Your task to perform on an android device: turn off javascript in the chrome app Image 0: 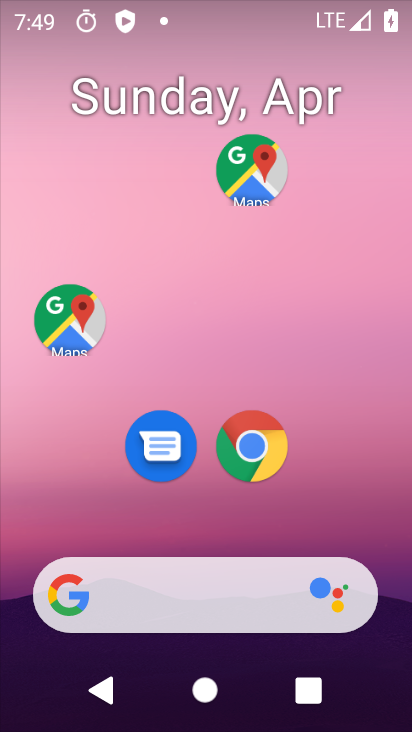
Step 0: drag from (224, 535) to (228, 94)
Your task to perform on an android device: turn off javascript in the chrome app Image 1: 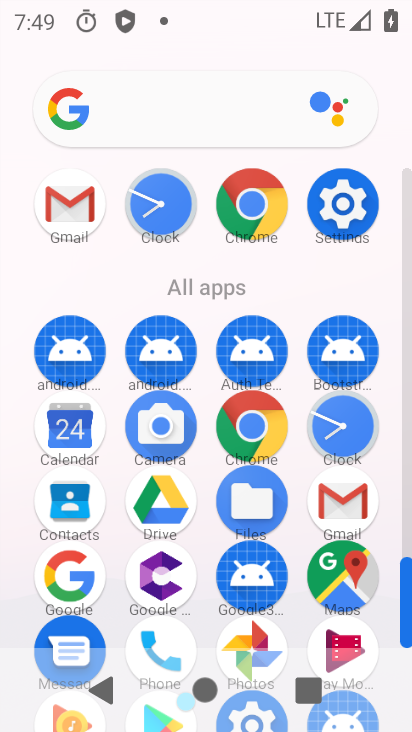
Step 1: click (247, 416)
Your task to perform on an android device: turn off javascript in the chrome app Image 2: 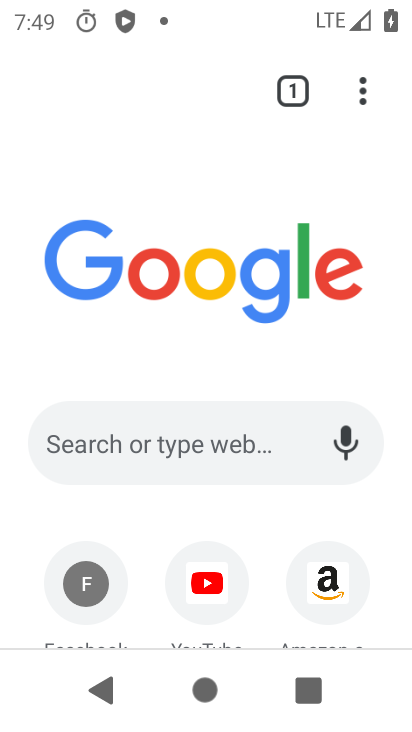
Step 2: drag from (359, 97) to (188, 469)
Your task to perform on an android device: turn off javascript in the chrome app Image 3: 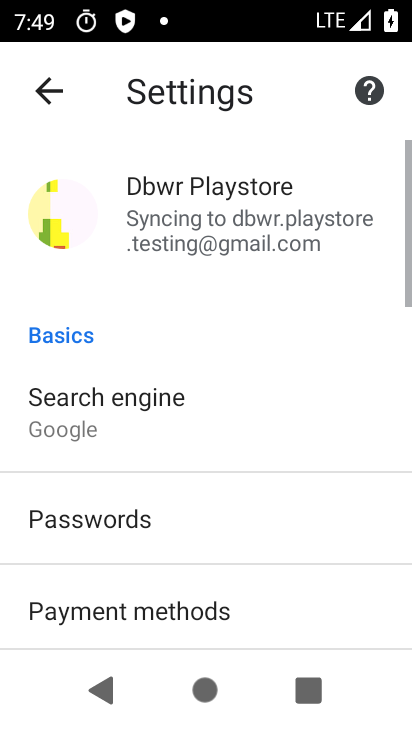
Step 3: drag from (186, 555) to (118, 24)
Your task to perform on an android device: turn off javascript in the chrome app Image 4: 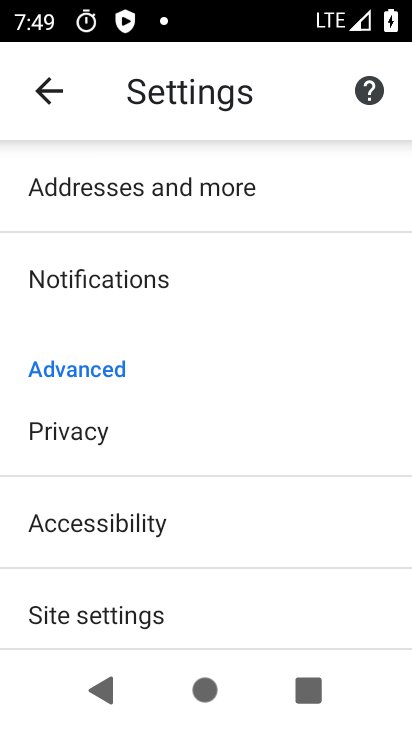
Step 4: drag from (180, 545) to (180, 382)
Your task to perform on an android device: turn off javascript in the chrome app Image 5: 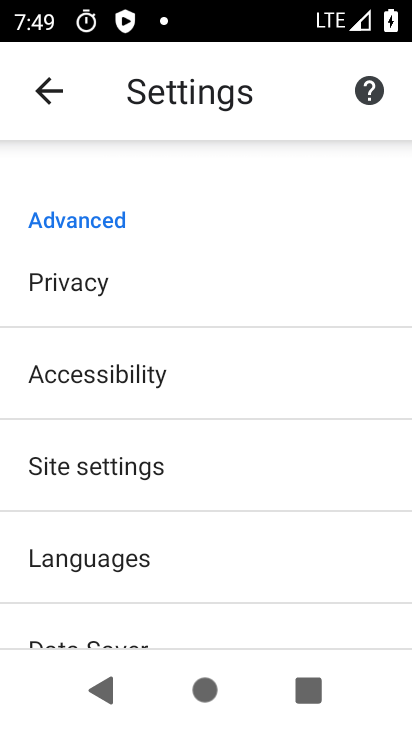
Step 5: click (172, 450)
Your task to perform on an android device: turn off javascript in the chrome app Image 6: 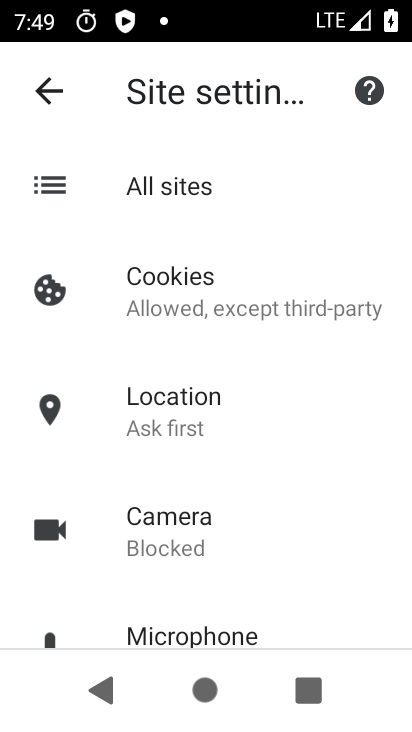
Step 6: drag from (265, 603) to (209, 221)
Your task to perform on an android device: turn off javascript in the chrome app Image 7: 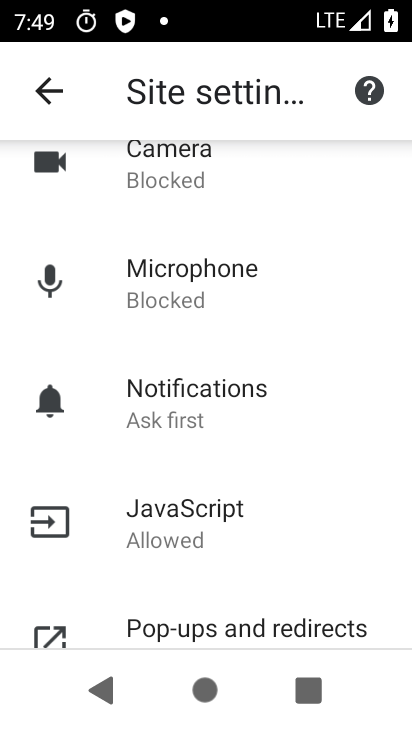
Step 7: click (207, 523)
Your task to perform on an android device: turn off javascript in the chrome app Image 8: 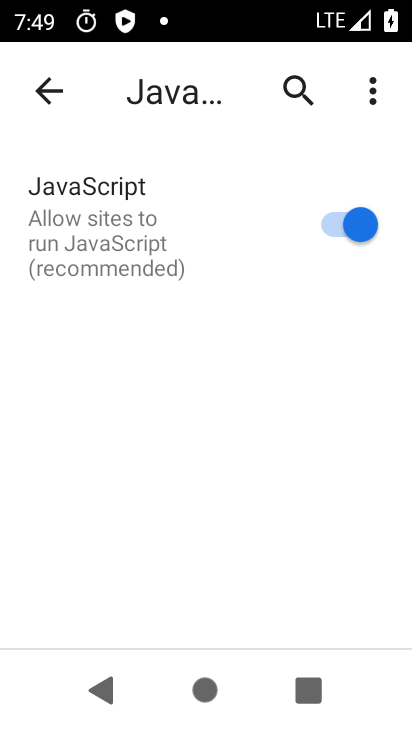
Step 8: click (346, 221)
Your task to perform on an android device: turn off javascript in the chrome app Image 9: 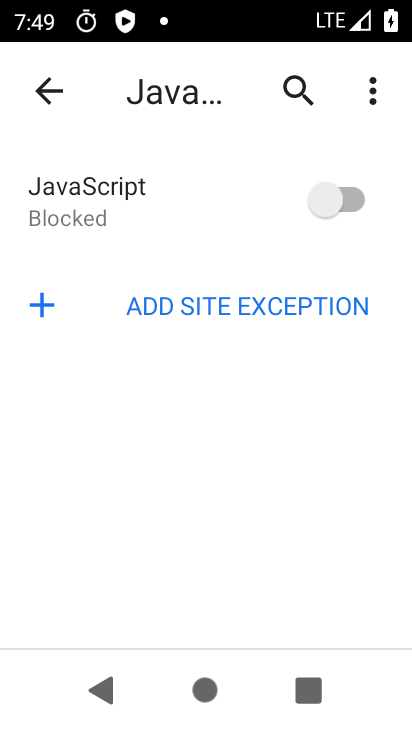
Step 9: task complete